Your task to perform on an android device: clear all cookies in the chrome app Image 0: 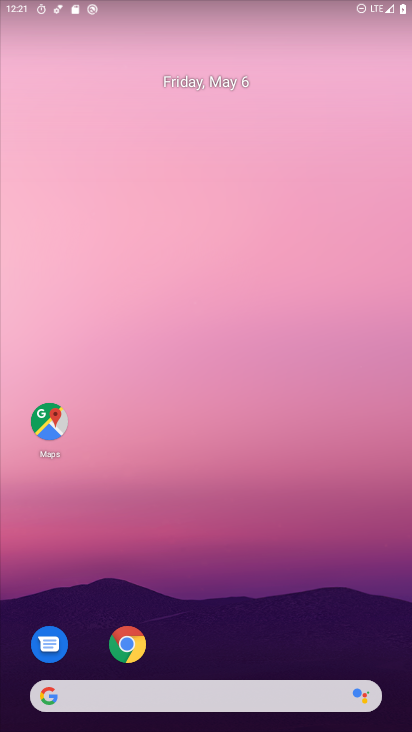
Step 0: drag from (375, 631) to (384, 163)
Your task to perform on an android device: clear all cookies in the chrome app Image 1: 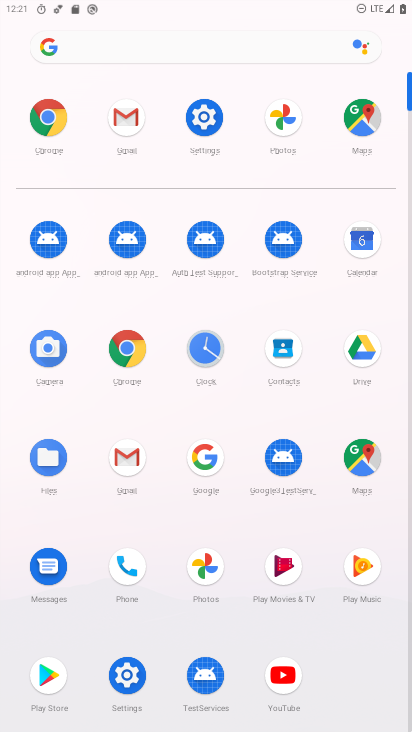
Step 1: click (134, 343)
Your task to perform on an android device: clear all cookies in the chrome app Image 2: 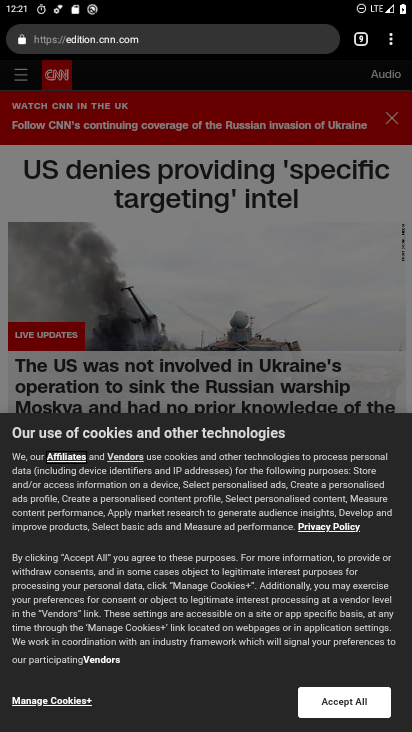
Step 2: drag from (391, 42) to (273, 212)
Your task to perform on an android device: clear all cookies in the chrome app Image 3: 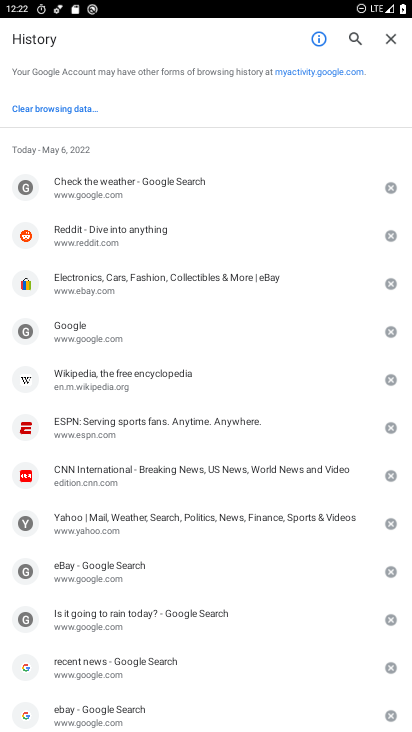
Step 3: click (40, 107)
Your task to perform on an android device: clear all cookies in the chrome app Image 4: 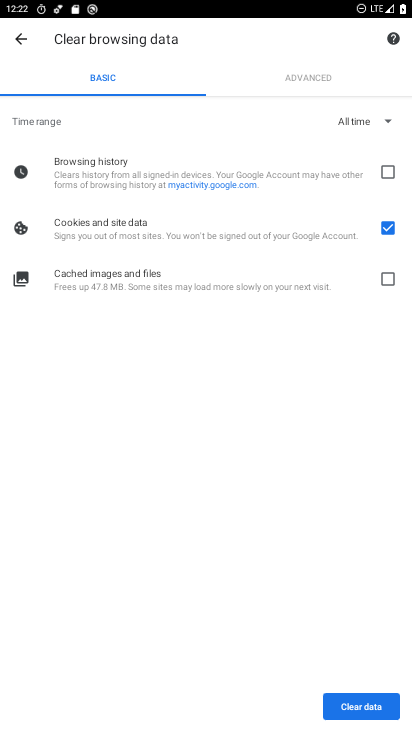
Step 4: click (347, 711)
Your task to perform on an android device: clear all cookies in the chrome app Image 5: 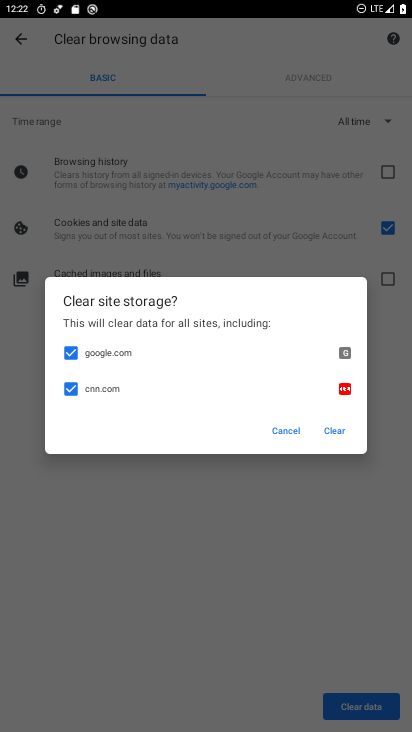
Step 5: click (332, 431)
Your task to perform on an android device: clear all cookies in the chrome app Image 6: 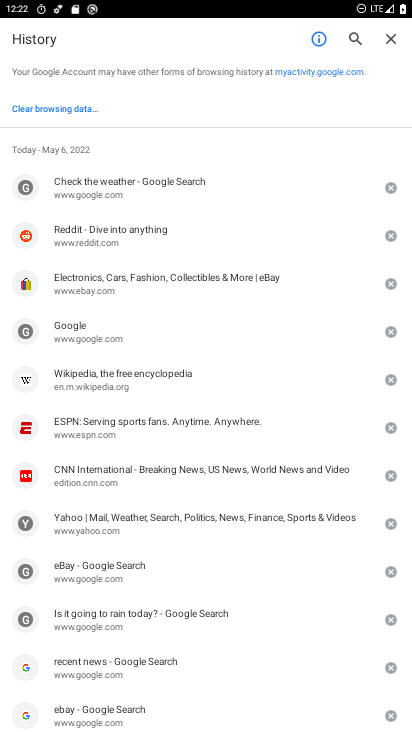
Step 6: task complete